Your task to perform on an android device: add a contact in the contacts app Image 0: 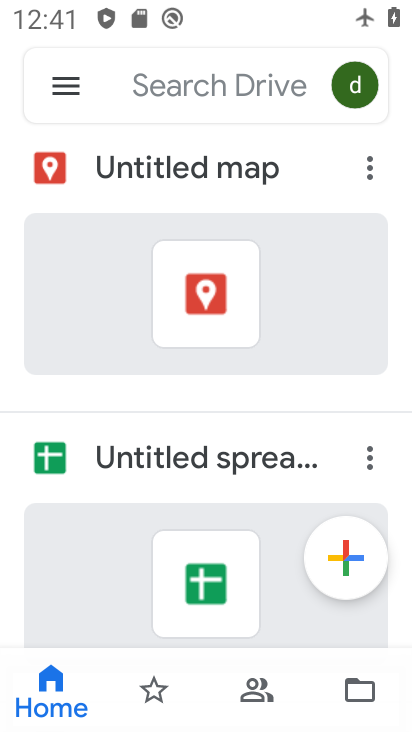
Step 0: press back button
Your task to perform on an android device: add a contact in the contacts app Image 1: 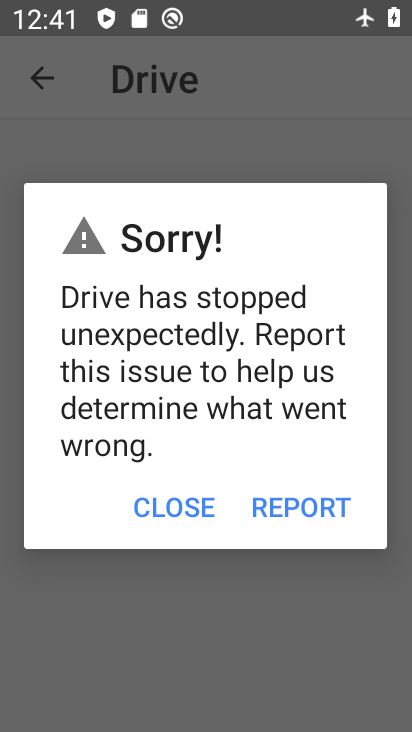
Step 1: press back button
Your task to perform on an android device: add a contact in the contacts app Image 2: 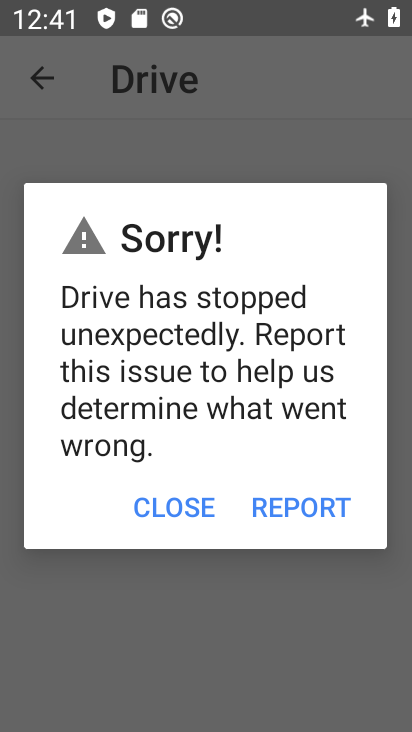
Step 2: press home button
Your task to perform on an android device: add a contact in the contacts app Image 3: 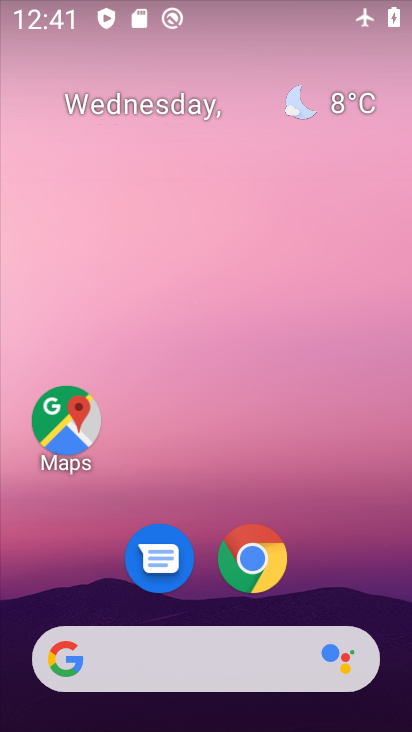
Step 3: drag from (334, 587) to (257, 55)
Your task to perform on an android device: add a contact in the contacts app Image 4: 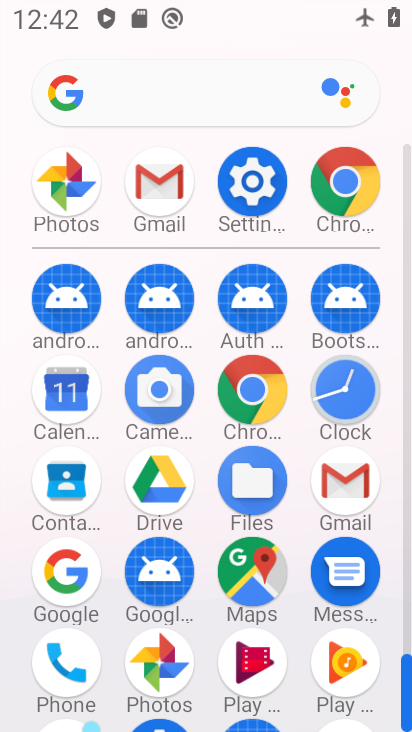
Step 4: click (64, 475)
Your task to perform on an android device: add a contact in the contacts app Image 5: 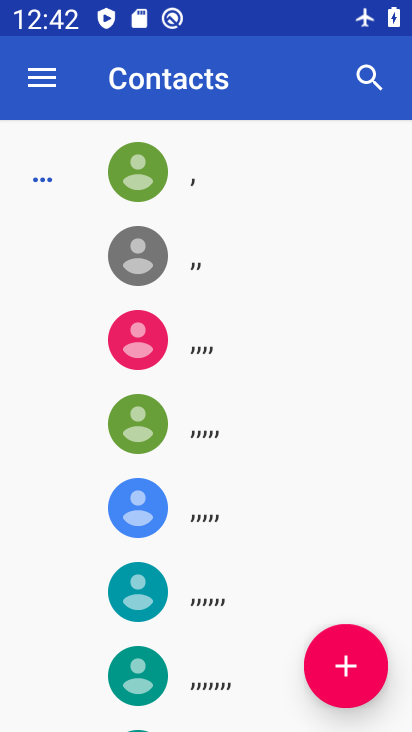
Step 5: click (324, 677)
Your task to perform on an android device: add a contact in the contacts app Image 6: 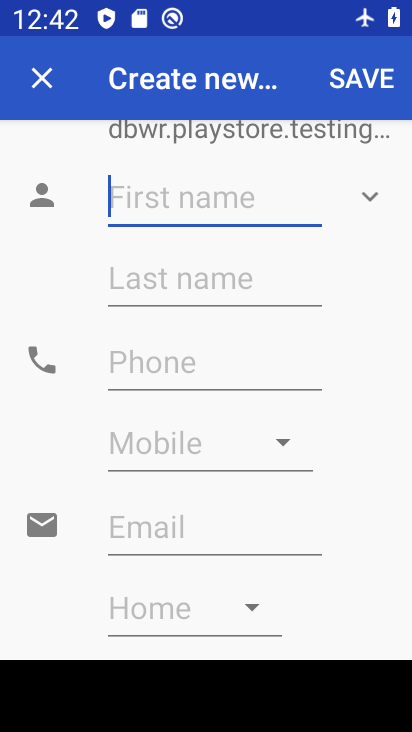
Step 6: type ""
Your task to perform on an android device: add a contact in the contacts app Image 7: 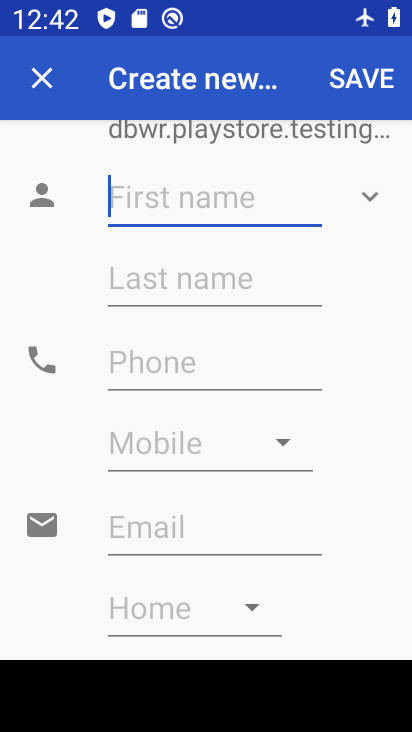
Step 7: type "DFGHJ"
Your task to perform on an android device: add a contact in the contacts app Image 8: 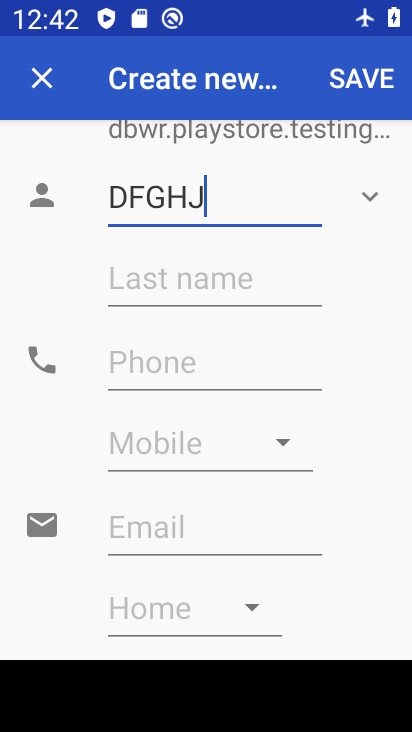
Step 8: type ""
Your task to perform on an android device: add a contact in the contacts app Image 9: 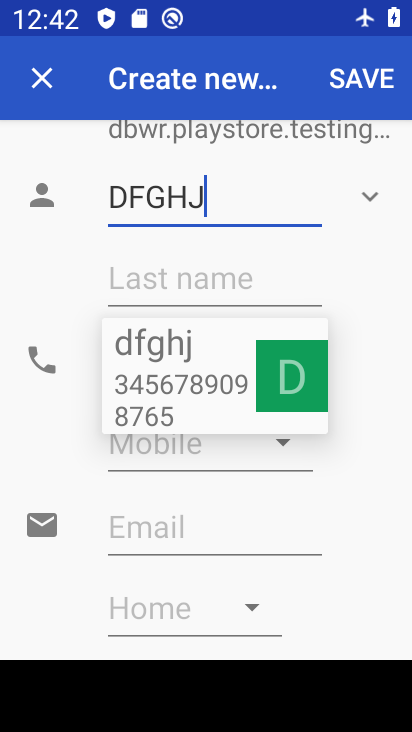
Step 9: click (180, 377)
Your task to perform on an android device: add a contact in the contacts app Image 10: 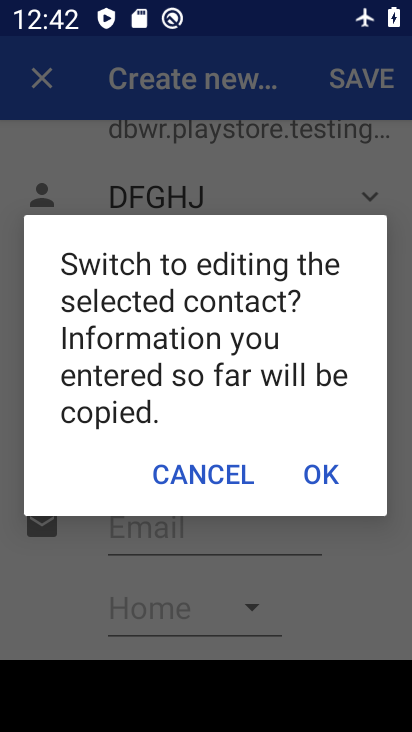
Step 10: click (310, 465)
Your task to perform on an android device: add a contact in the contacts app Image 11: 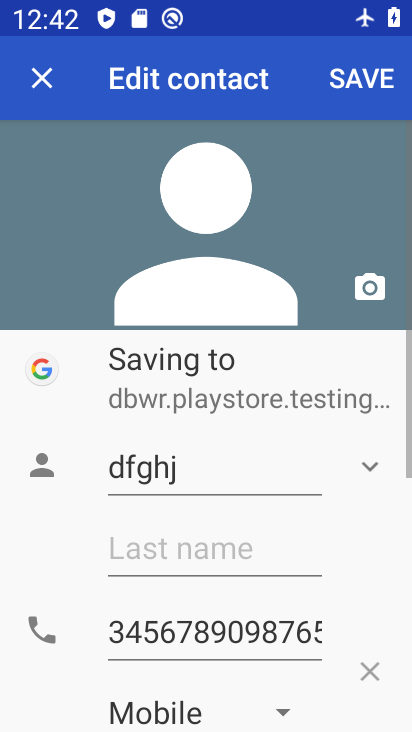
Step 11: click (349, 70)
Your task to perform on an android device: add a contact in the contacts app Image 12: 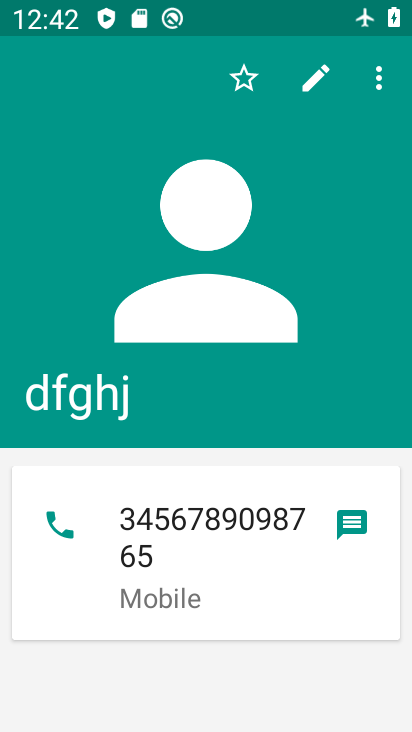
Step 12: task complete